Your task to perform on an android device: Open Chrome and go to the settings page Image 0: 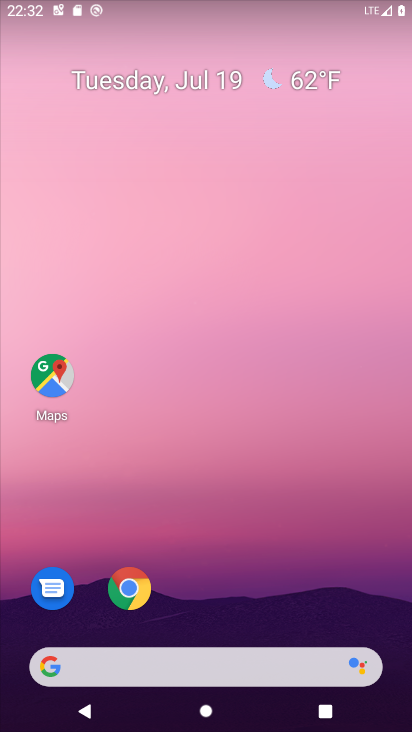
Step 0: click (123, 591)
Your task to perform on an android device: Open Chrome and go to the settings page Image 1: 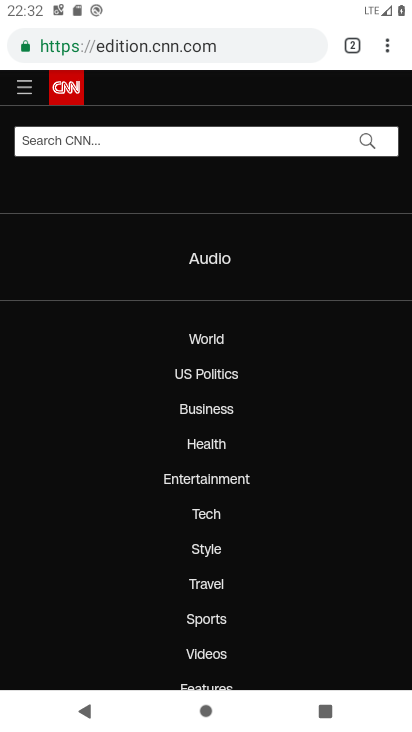
Step 1: click (389, 47)
Your task to perform on an android device: Open Chrome and go to the settings page Image 2: 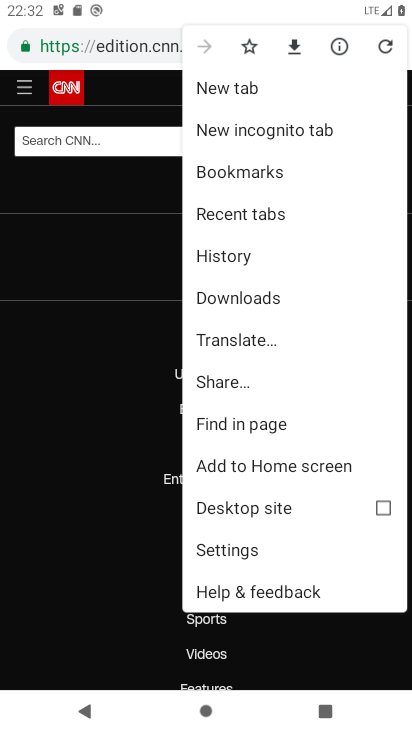
Step 2: click (219, 552)
Your task to perform on an android device: Open Chrome and go to the settings page Image 3: 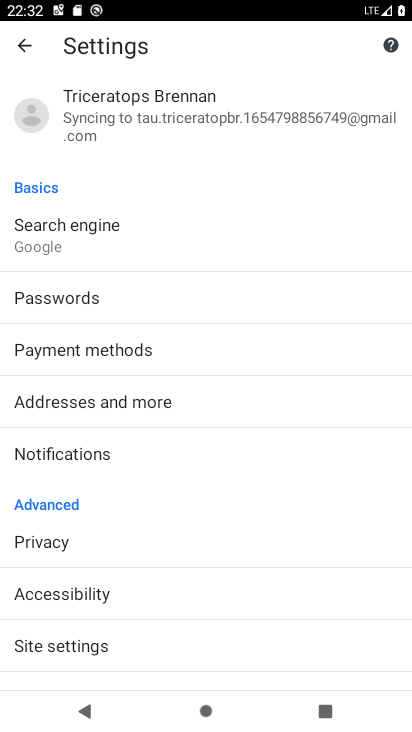
Step 3: task complete